Your task to perform on an android device: star an email in the gmail app Image 0: 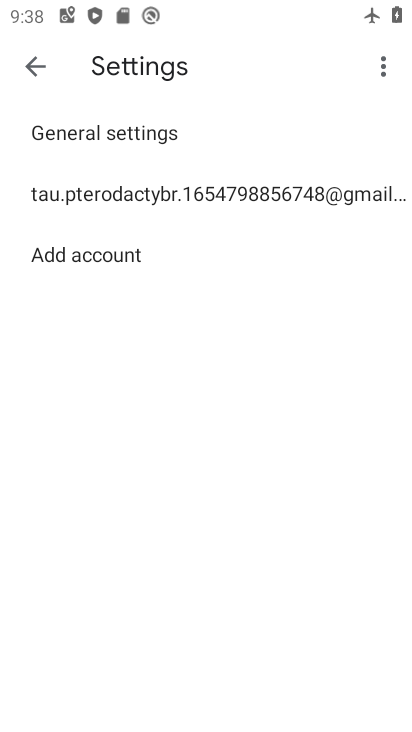
Step 0: press home button
Your task to perform on an android device: star an email in the gmail app Image 1: 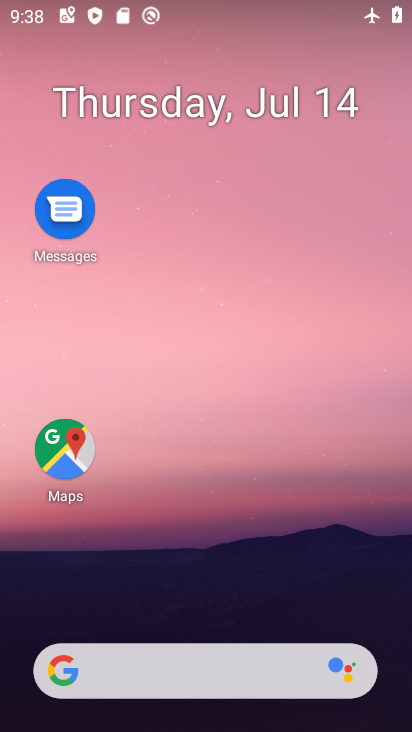
Step 1: drag from (231, 615) to (197, 2)
Your task to perform on an android device: star an email in the gmail app Image 2: 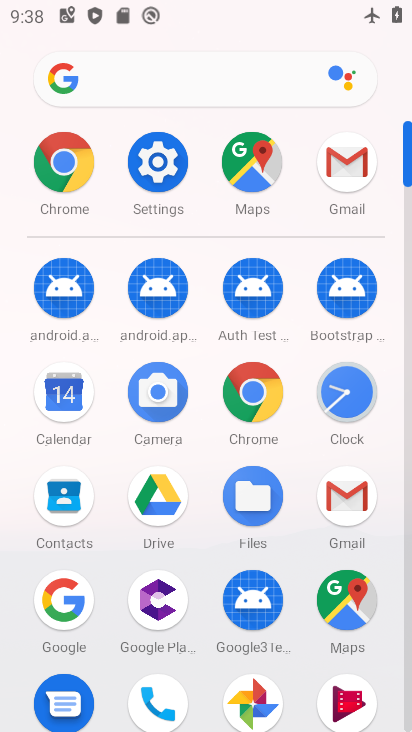
Step 2: click (340, 501)
Your task to perform on an android device: star an email in the gmail app Image 3: 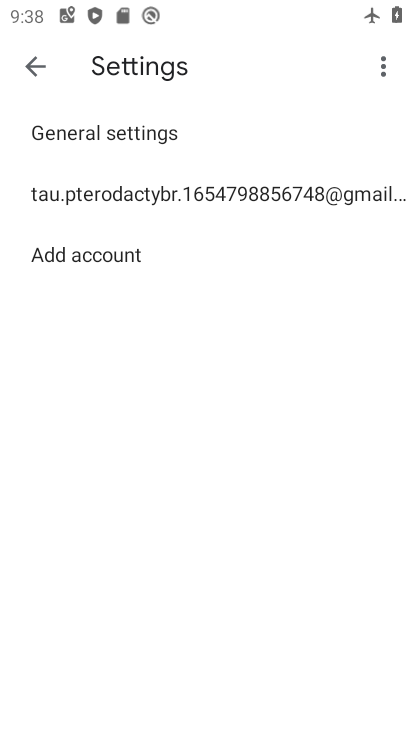
Step 3: click (39, 60)
Your task to perform on an android device: star an email in the gmail app Image 4: 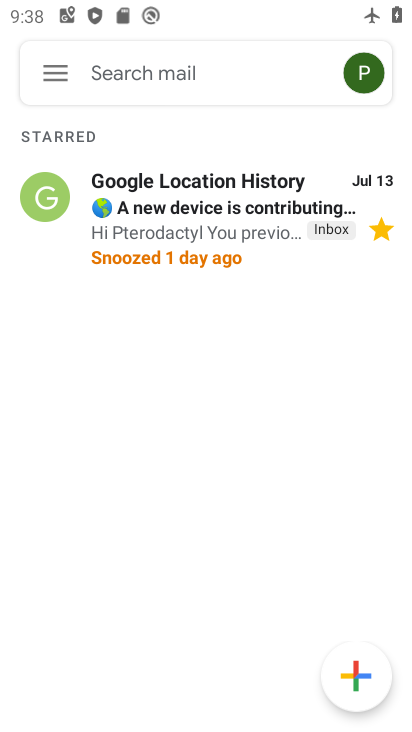
Step 4: click (39, 60)
Your task to perform on an android device: star an email in the gmail app Image 5: 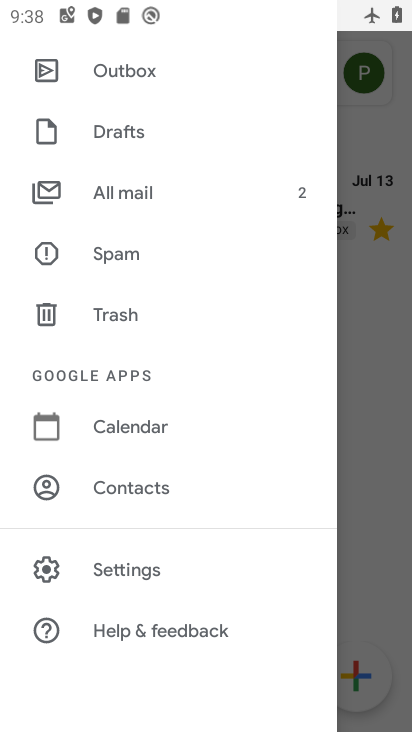
Step 5: click (120, 198)
Your task to perform on an android device: star an email in the gmail app Image 6: 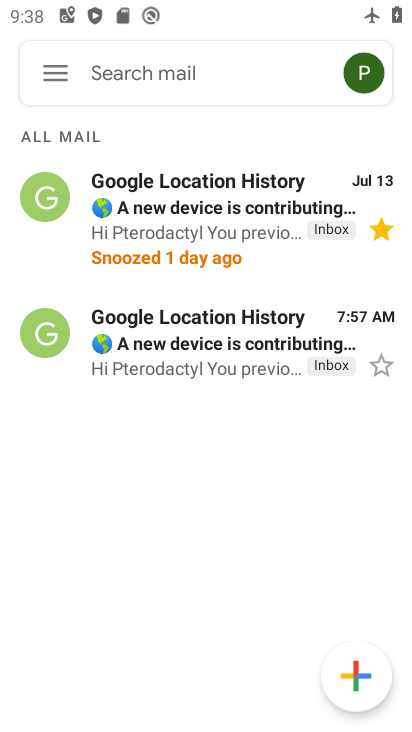
Step 6: click (385, 368)
Your task to perform on an android device: star an email in the gmail app Image 7: 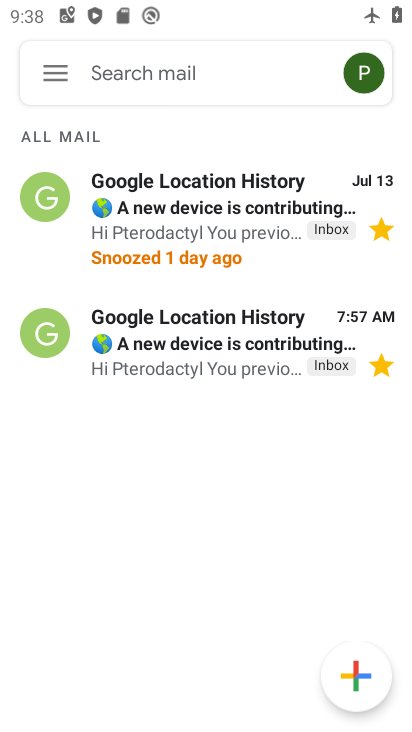
Step 7: task complete